Your task to perform on an android device: Open network settings Image 0: 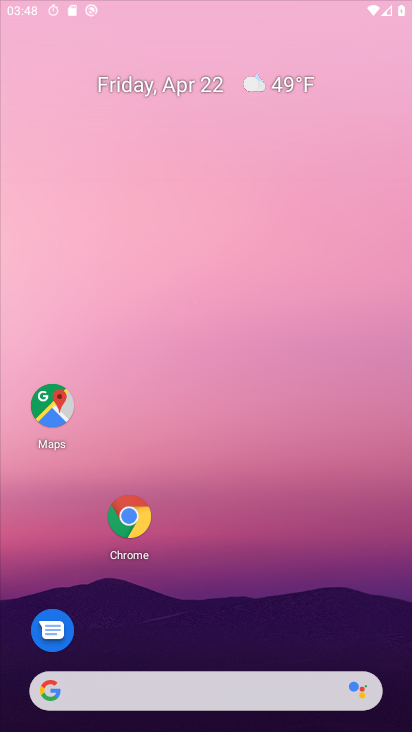
Step 0: click (366, 159)
Your task to perform on an android device: Open network settings Image 1: 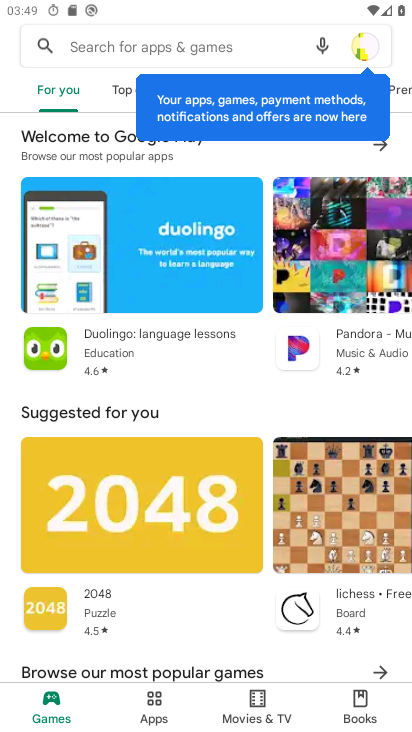
Step 1: press home button
Your task to perform on an android device: Open network settings Image 2: 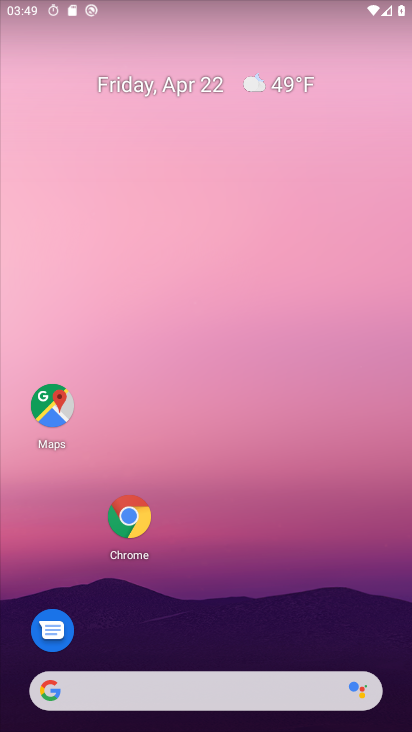
Step 2: drag from (375, 619) to (376, 188)
Your task to perform on an android device: Open network settings Image 3: 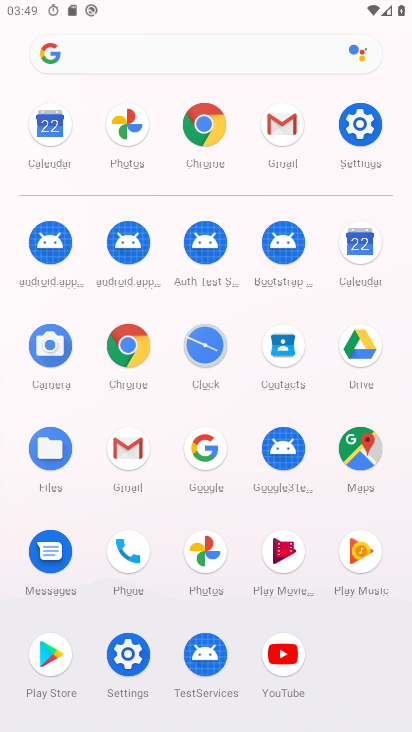
Step 3: click (351, 126)
Your task to perform on an android device: Open network settings Image 4: 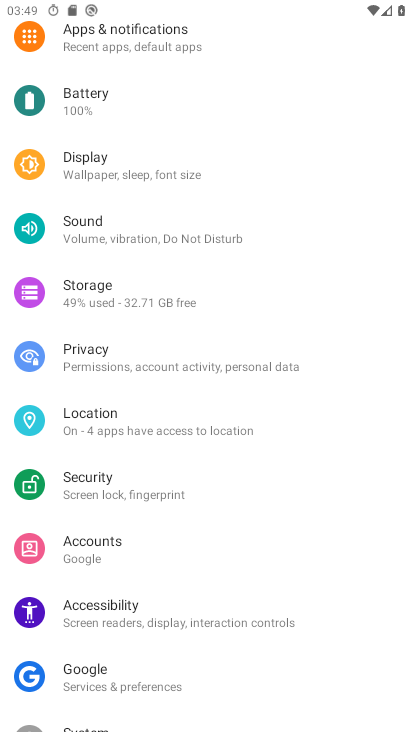
Step 4: drag from (284, 87) to (301, 498)
Your task to perform on an android device: Open network settings Image 5: 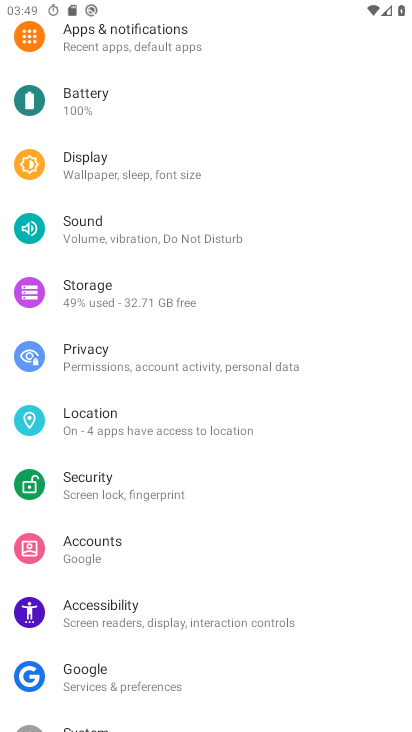
Step 5: drag from (349, 225) to (370, 664)
Your task to perform on an android device: Open network settings Image 6: 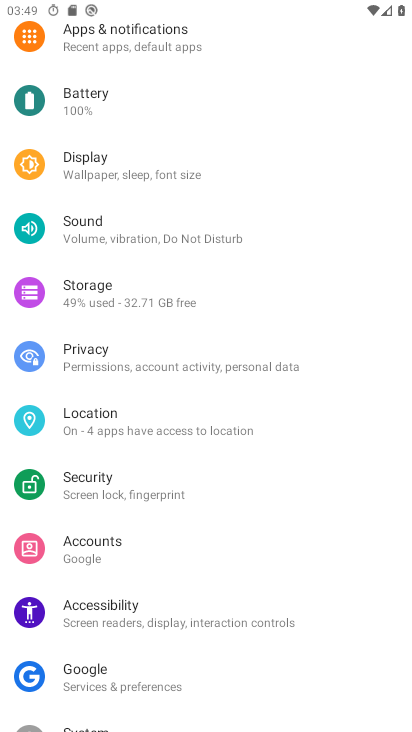
Step 6: drag from (344, 40) to (411, 642)
Your task to perform on an android device: Open network settings Image 7: 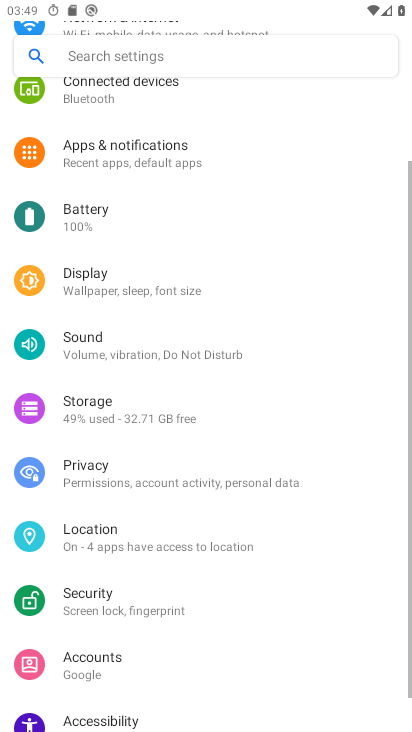
Step 7: drag from (325, 139) to (346, 619)
Your task to perform on an android device: Open network settings Image 8: 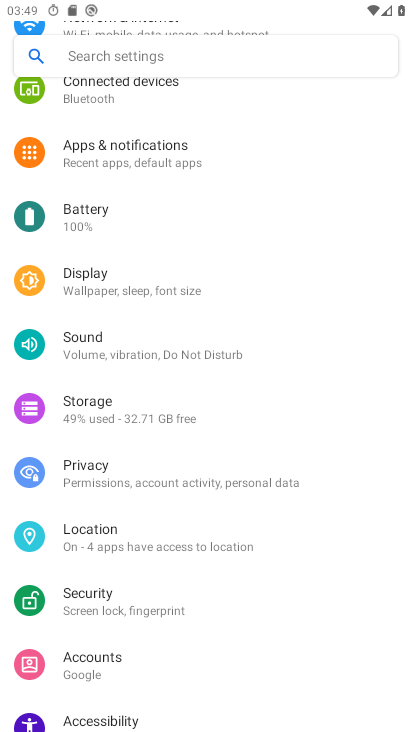
Step 8: drag from (326, 429) to (329, 638)
Your task to perform on an android device: Open network settings Image 9: 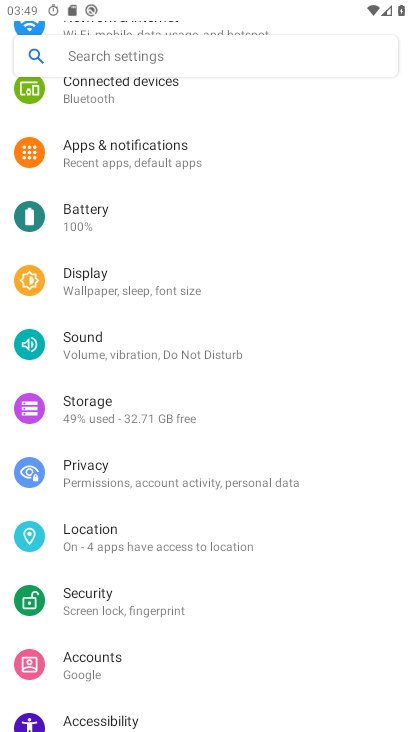
Step 9: click (138, 21)
Your task to perform on an android device: Open network settings Image 10: 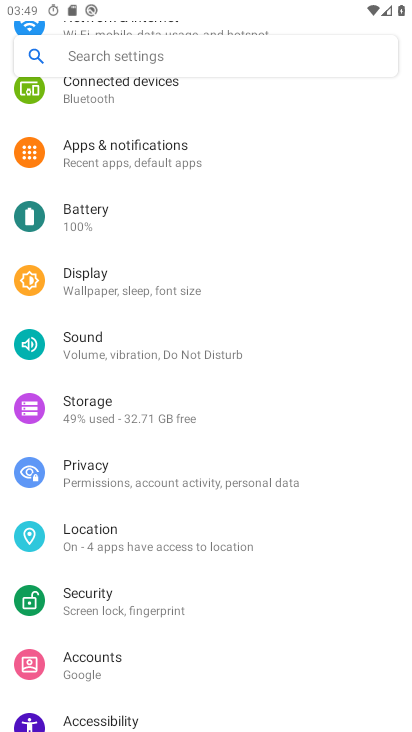
Step 10: click (134, 23)
Your task to perform on an android device: Open network settings Image 11: 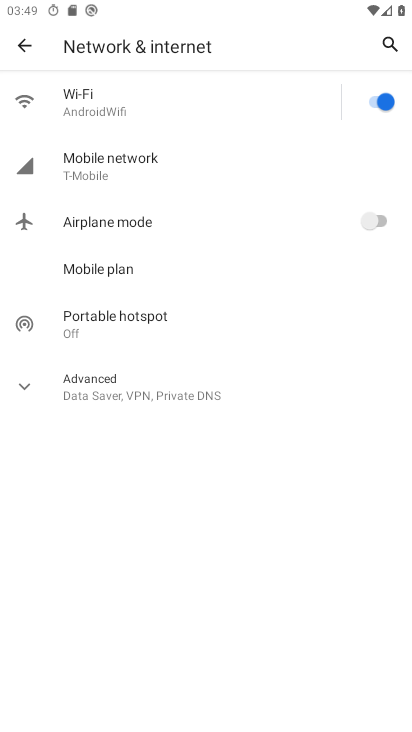
Step 11: click (83, 161)
Your task to perform on an android device: Open network settings Image 12: 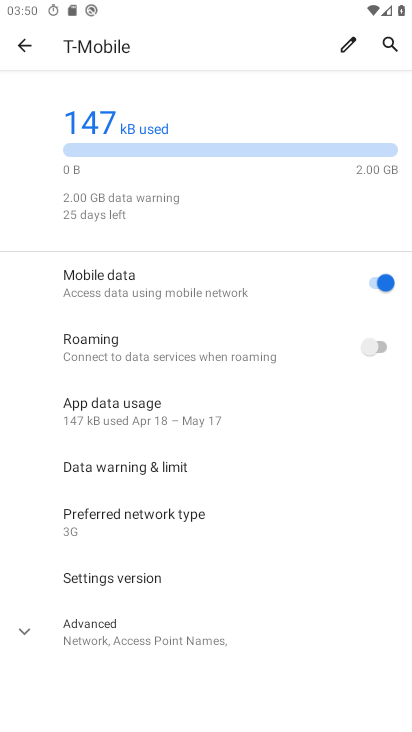
Step 12: task complete